Your task to perform on an android device: Search for vegetarian restaurants on Maps Image 0: 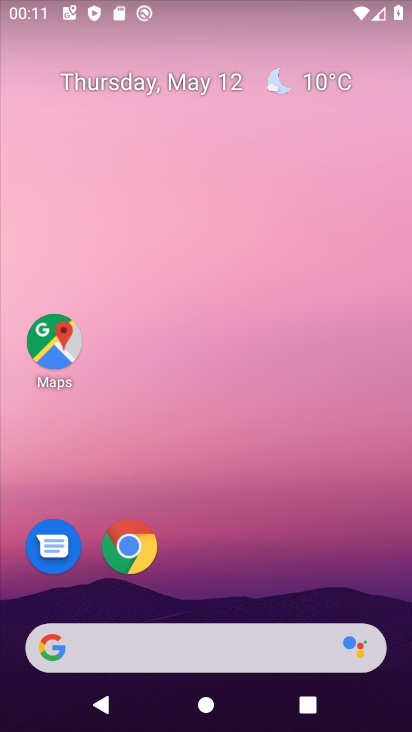
Step 0: click (47, 341)
Your task to perform on an android device: Search for vegetarian restaurants on Maps Image 1: 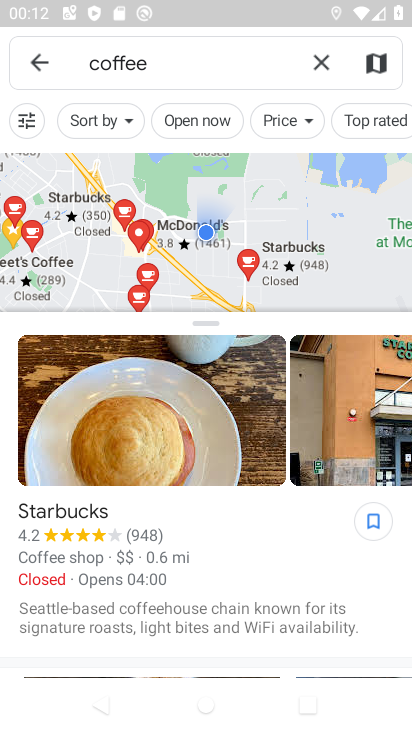
Step 1: click (311, 54)
Your task to perform on an android device: Search for vegetarian restaurants on Maps Image 2: 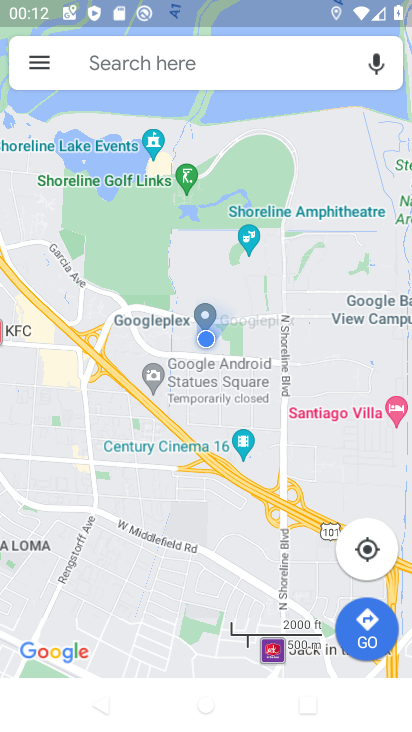
Step 2: click (135, 72)
Your task to perform on an android device: Search for vegetarian restaurants on Maps Image 3: 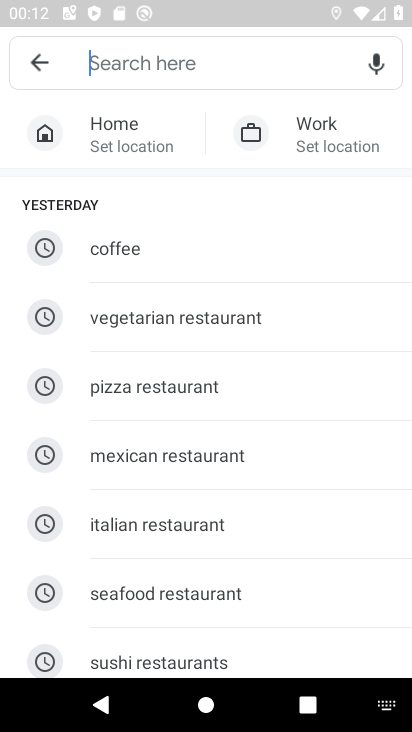
Step 3: type "vegetarian restaurants"
Your task to perform on an android device: Search for vegetarian restaurants on Maps Image 4: 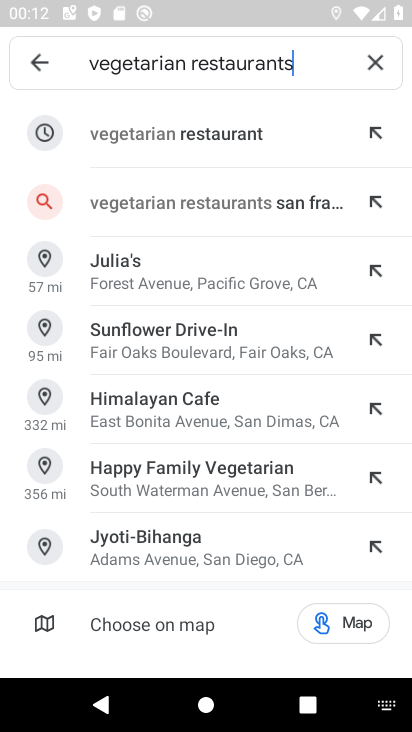
Step 4: click (168, 153)
Your task to perform on an android device: Search for vegetarian restaurants on Maps Image 5: 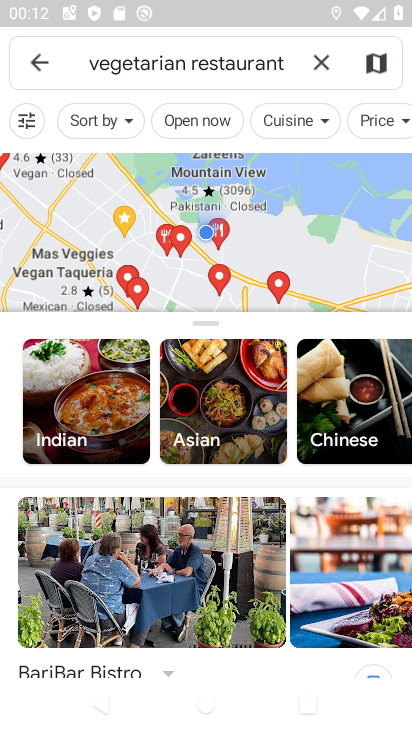
Step 5: task complete